Your task to perform on an android device: delete browsing data in the chrome app Image 0: 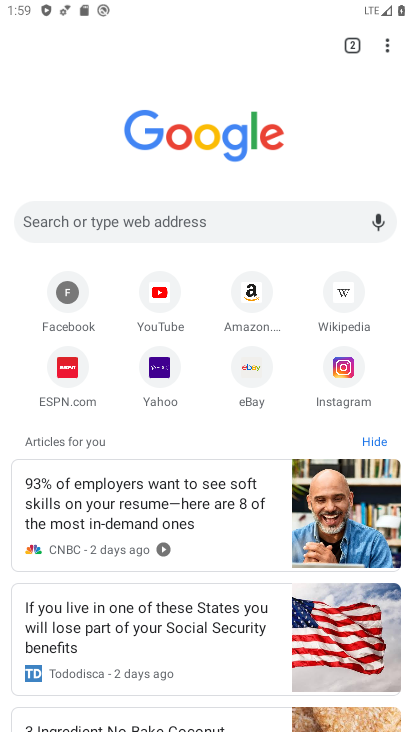
Step 0: press home button
Your task to perform on an android device: delete browsing data in the chrome app Image 1: 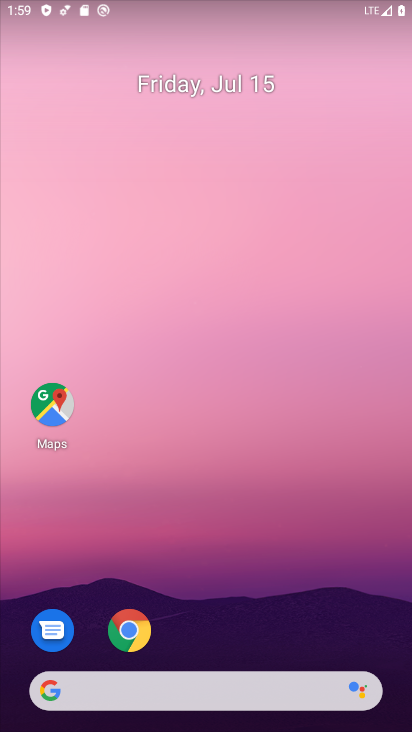
Step 1: click (122, 636)
Your task to perform on an android device: delete browsing data in the chrome app Image 2: 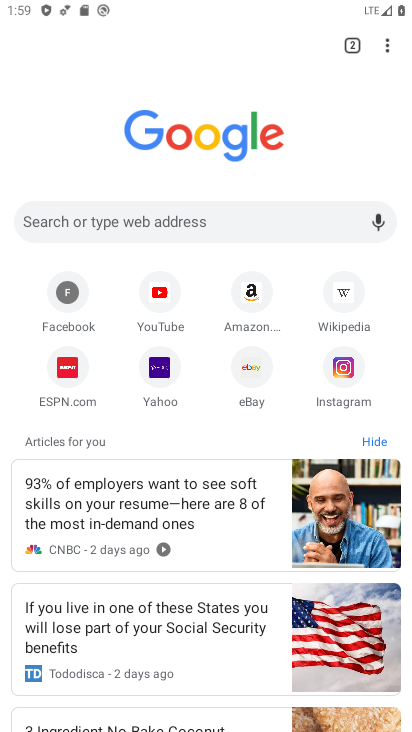
Step 2: drag from (391, 48) to (220, 374)
Your task to perform on an android device: delete browsing data in the chrome app Image 3: 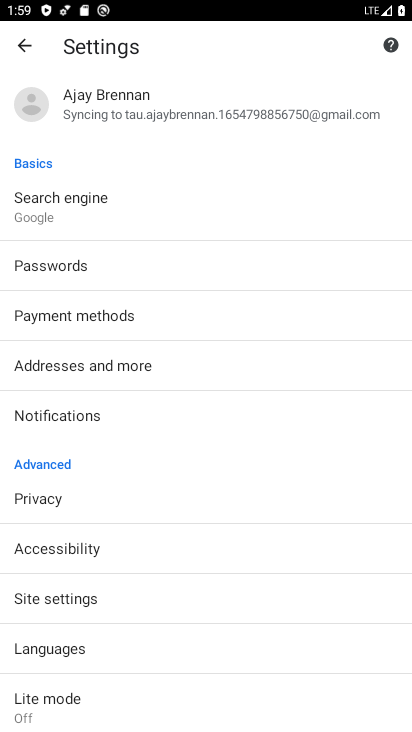
Step 3: click (28, 501)
Your task to perform on an android device: delete browsing data in the chrome app Image 4: 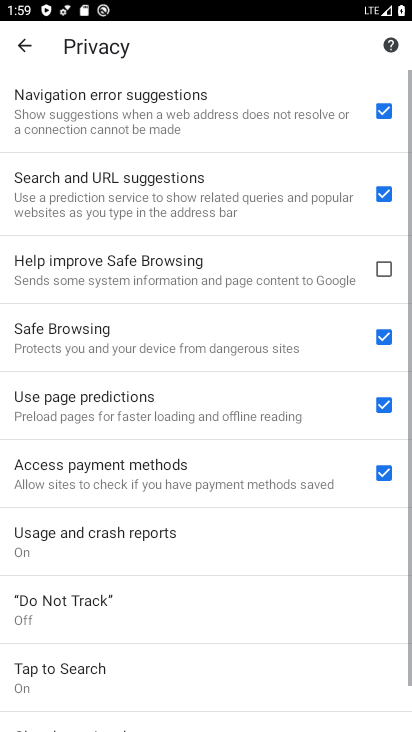
Step 4: drag from (235, 624) to (263, 186)
Your task to perform on an android device: delete browsing data in the chrome app Image 5: 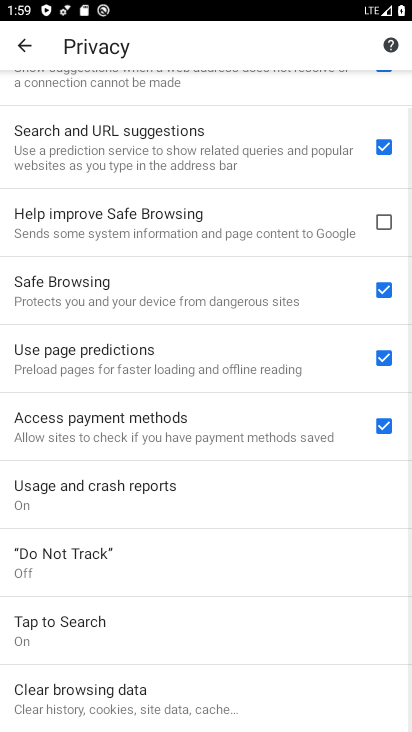
Step 5: click (94, 688)
Your task to perform on an android device: delete browsing data in the chrome app Image 6: 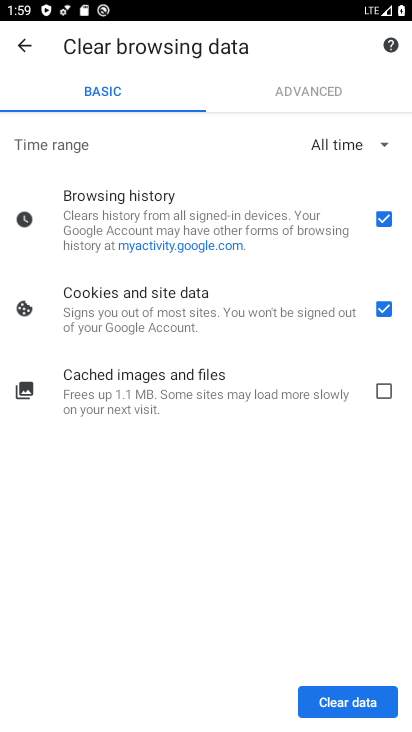
Step 6: click (375, 304)
Your task to perform on an android device: delete browsing data in the chrome app Image 7: 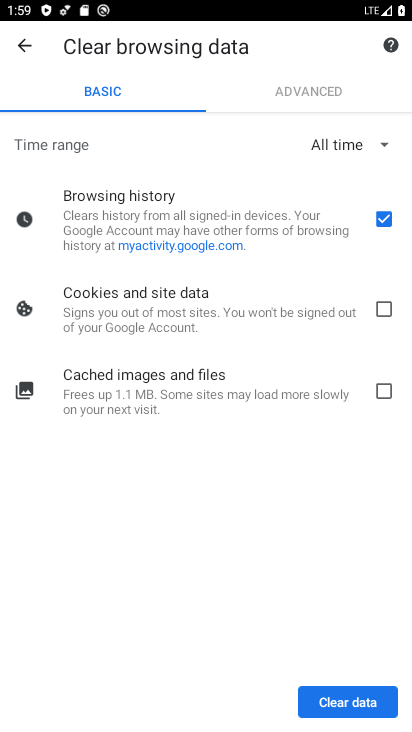
Step 7: click (329, 702)
Your task to perform on an android device: delete browsing data in the chrome app Image 8: 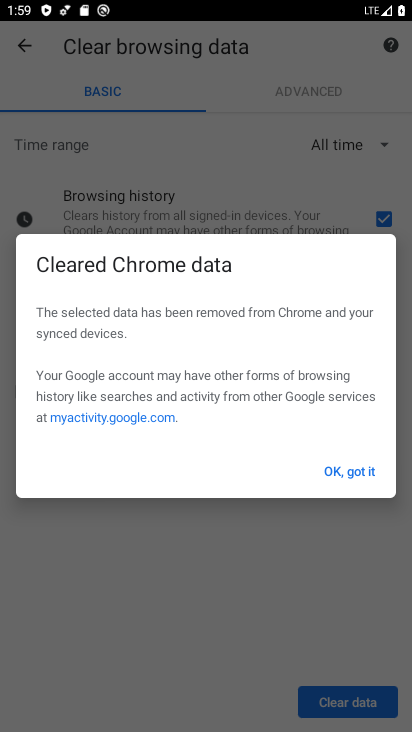
Step 8: click (367, 469)
Your task to perform on an android device: delete browsing data in the chrome app Image 9: 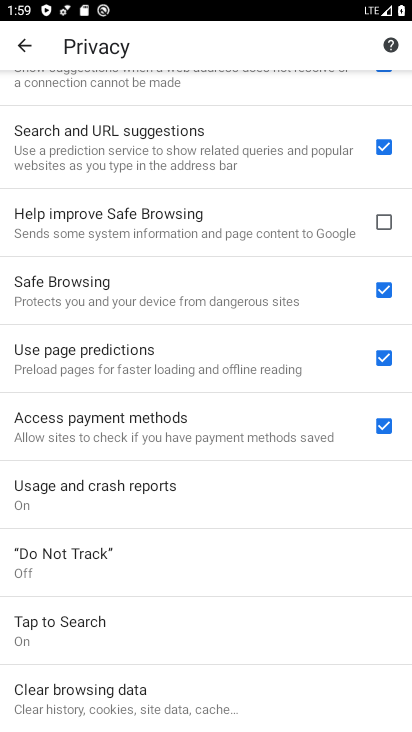
Step 9: task complete